Your task to perform on an android device: open a new tab in the chrome app Image 0: 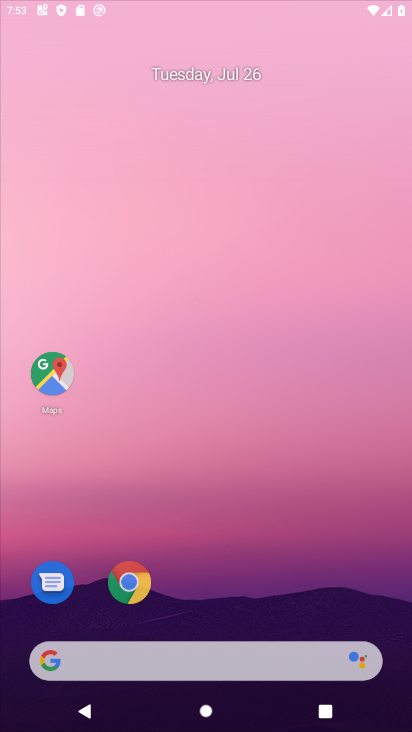
Step 0: drag from (260, 516) to (264, 215)
Your task to perform on an android device: open a new tab in the chrome app Image 1: 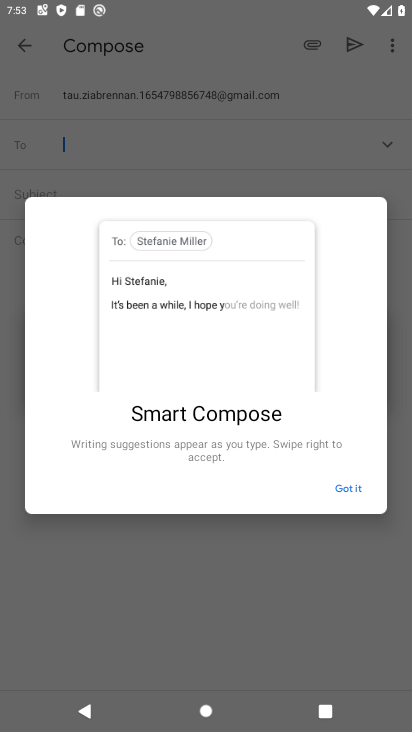
Step 1: click (340, 492)
Your task to perform on an android device: open a new tab in the chrome app Image 2: 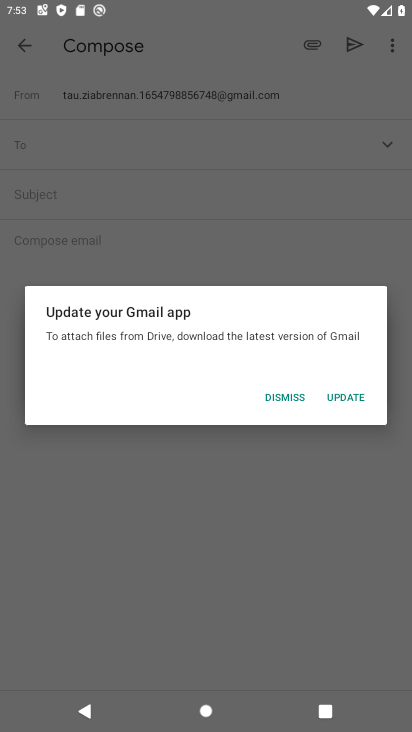
Step 2: press home button
Your task to perform on an android device: open a new tab in the chrome app Image 3: 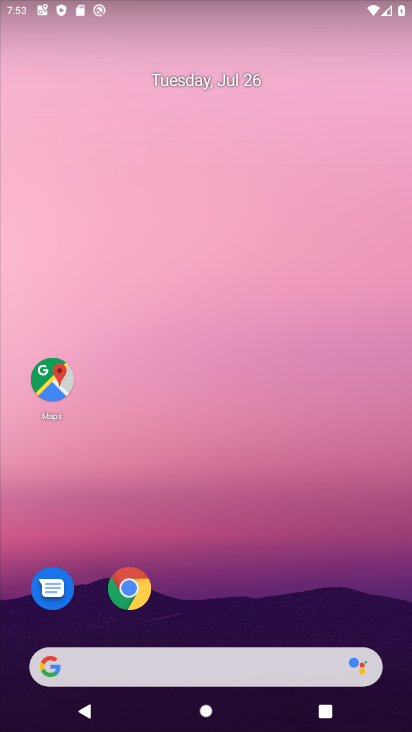
Step 3: click (126, 584)
Your task to perform on an android device: open a new tab in the chrome app Image 4: 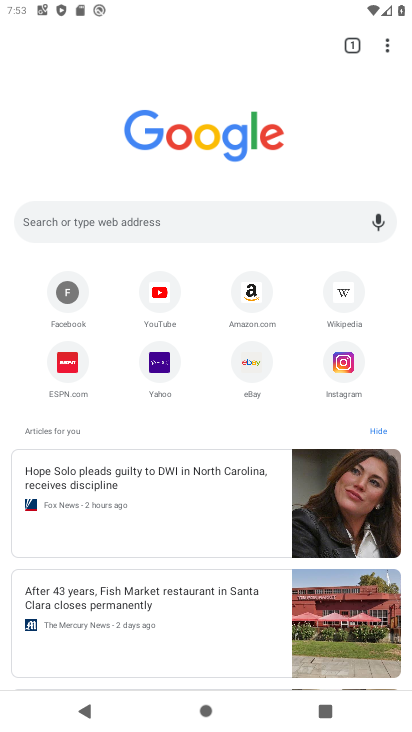
Step 4: click (350, 46)
Your task to perform on an android device: open a new tab in the chrome app Image 5: 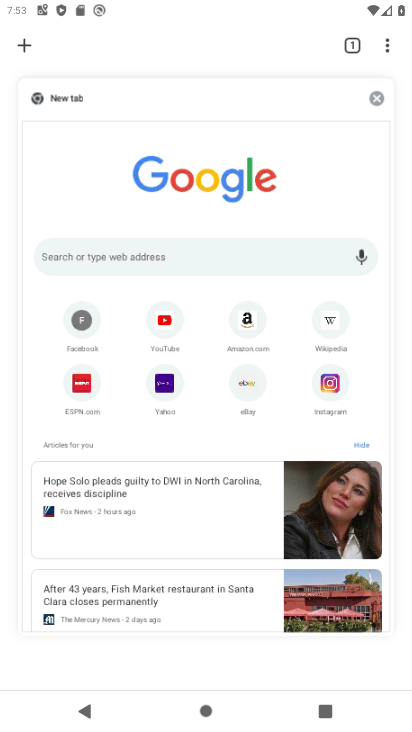
Step 5: click (23, 46)
Your task to perform on an android device: open a new tab in the chrome app Image 6: 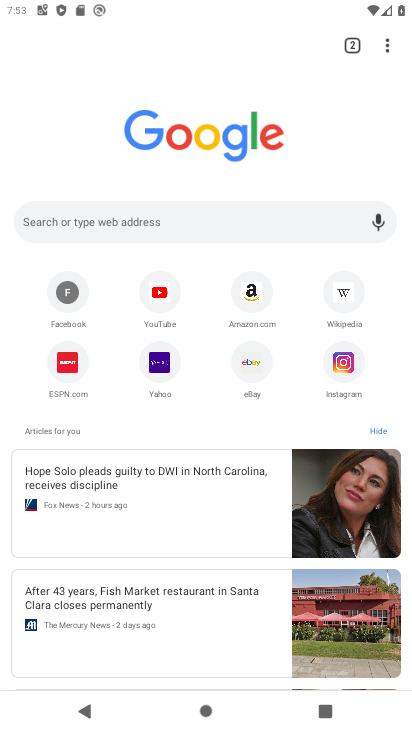
Step 6: task complete